Your task to perform on an android device: turn off sleep mode Image 0: 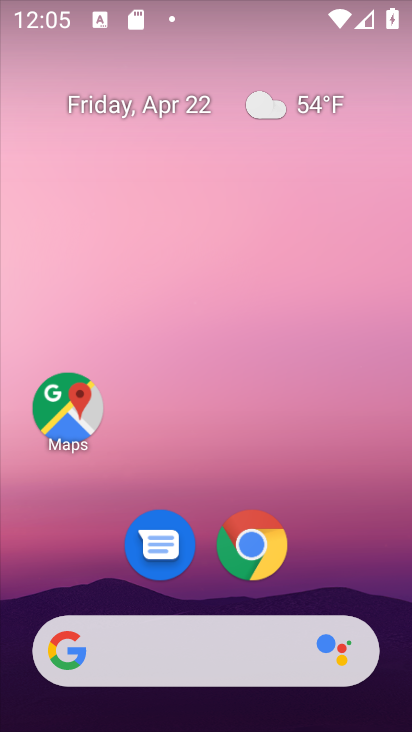
Step 0: drag from (192, 342) to (165, 109)
Your task to perform on an android device: turn off sleep mode Image 1: 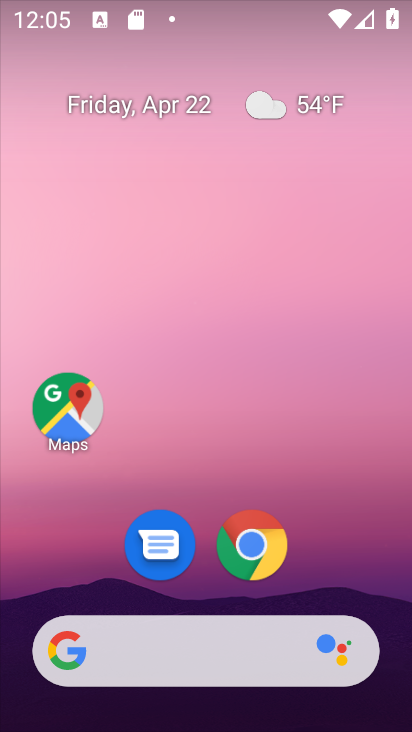
Step 1: drag from (207, 448) to (248, 2)
Your task to perform on an android device: turn off sleep mode Image 2: 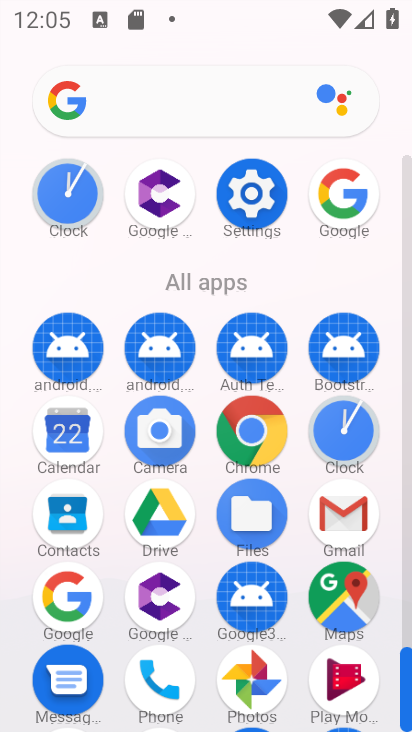
Step 2: click (261, 196)
Your task to perform on an android device: turn off sleep mode Image 3: 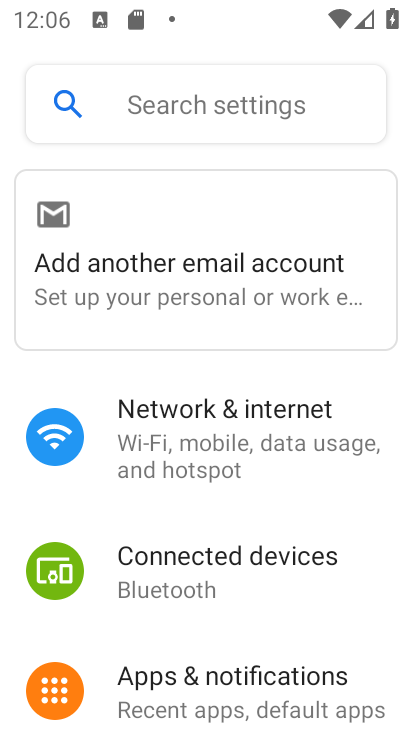
Step 3: task complete